Your task to perform on an android device: turn on the 24-hour format for clock Image 0: 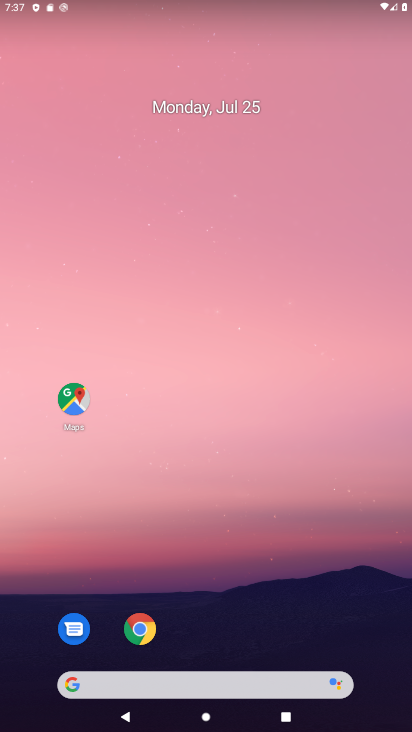
Step 0: drag from (84, 609) to (207, 210)
Your task to perform on an android device: turn on the 24-hour format for clock Image 1: 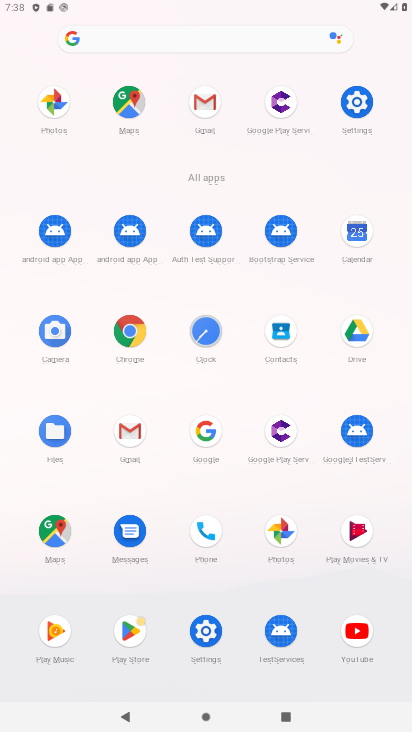
Step 1: click (192, 342)
Your task to perform on an android device: turn on the 24-hour format for clock Image 2: 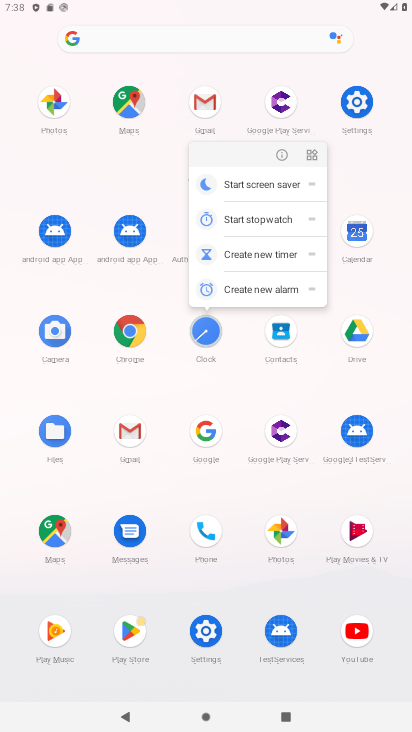
Step 2: click (191, 344)
Your task to perform on an android device: turn on the 24-hour format for clock Image 3: 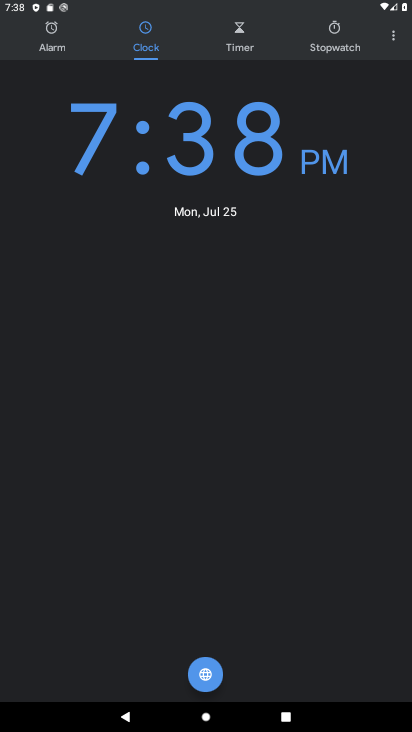
Step 3: click (393, 38)
Your task to perform on an android device: turn on the 24-hour format for clock Image 4: 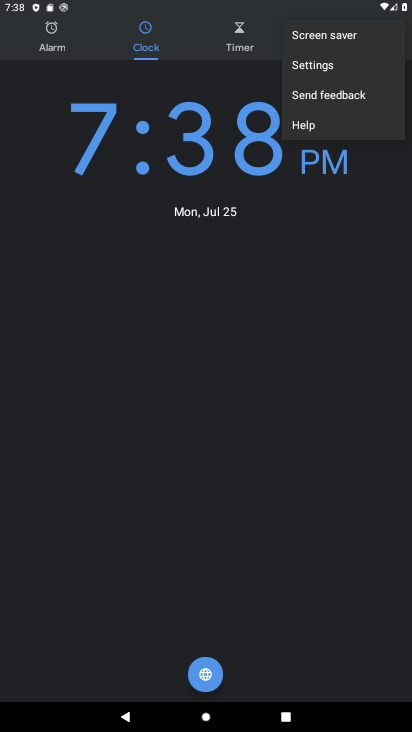
Step 4: click (319, 68)
Your task to perform on an android device: turn on the 24-hour format for clock Image 5: 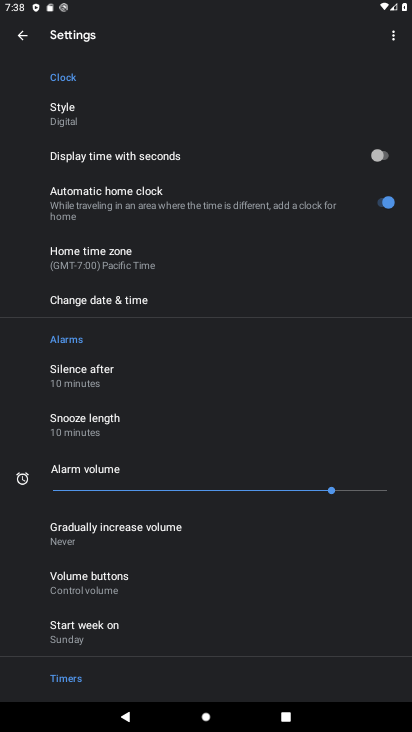
Step 5: click (200, 356)
Your task to perform on an android device: turn on the 24-hour format for clock Image 6: 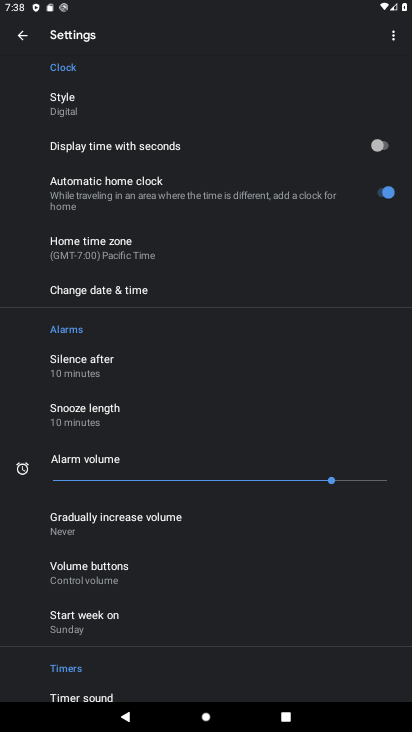
Step 6: drag from (333, 586) to (288, 302)
Your task to perform on an android device: turn on the 24-hour format for clock Image 7: 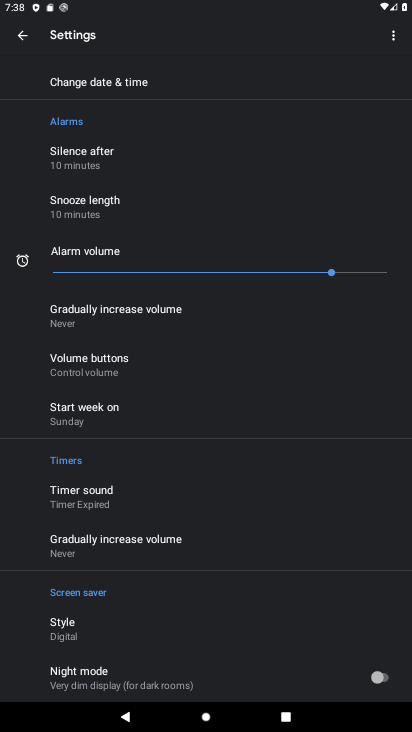
Step 7: click (94, 82)
Your task to perform on an android device: turn on the 24-hour format for clock Image 8: 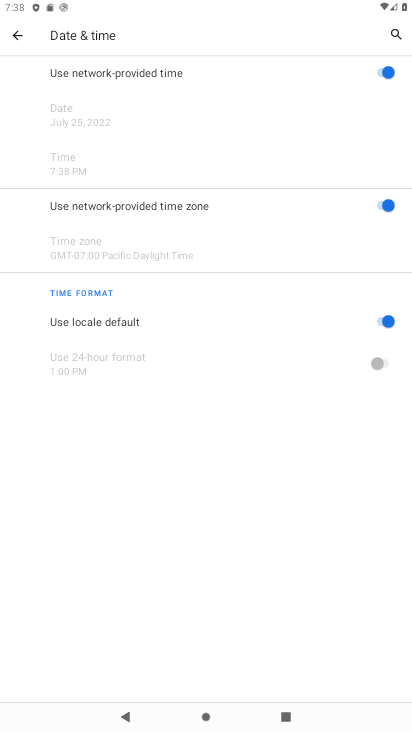
Step 8: click (388, 326)
Your task to perform on an android device: turn on the 24-hour format for clock Image 9: 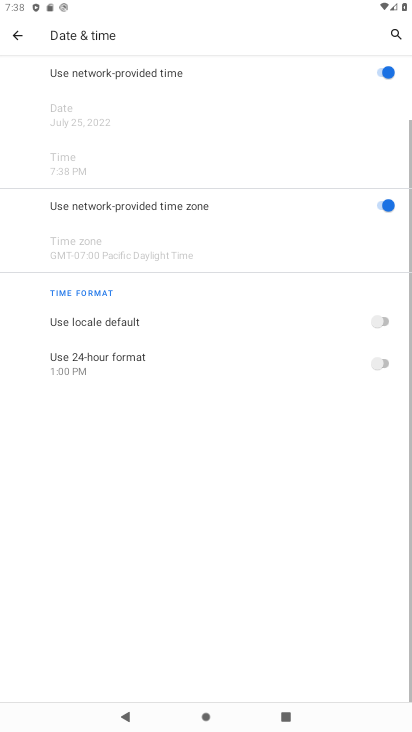
Step 9: click (382, 367)
Your task to perform on an android device: turn on the 24-hour format for clock Image 10: 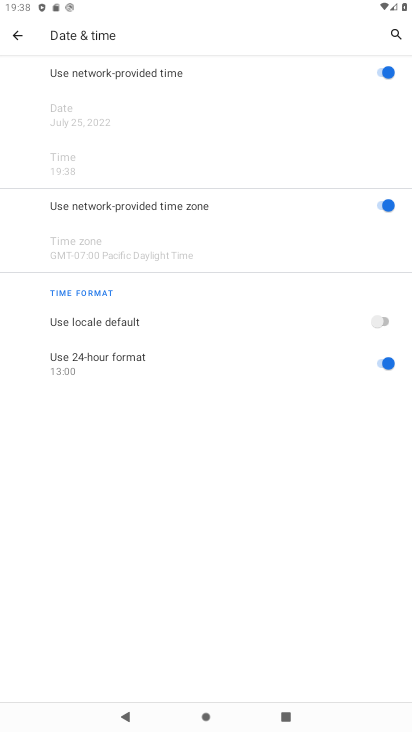
Step 10: task complete